Your task to perform on an android device: Turn off the flashlight Image 0: 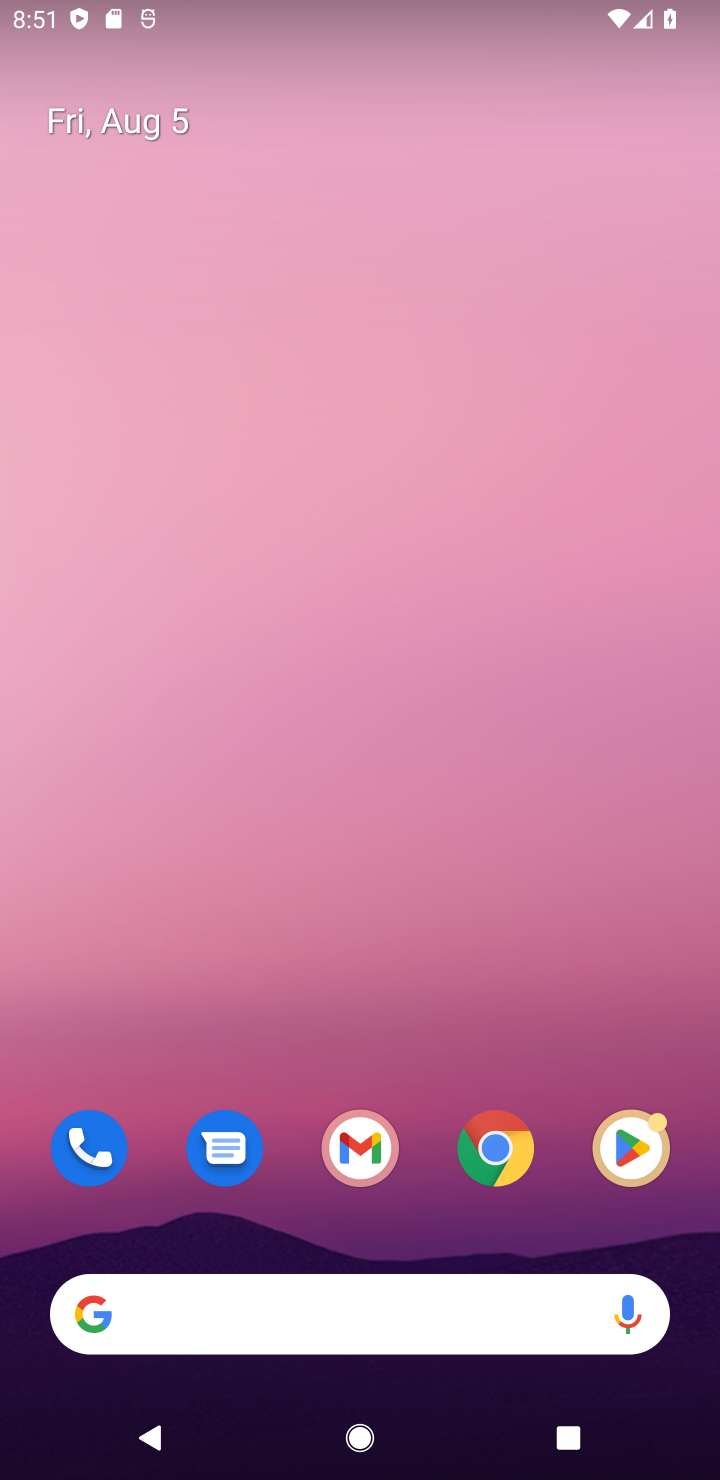
Step 0: drag from (421, 1246) to (446, 156)
Your task to perform on an android device: Turn off the flashlight Image 1: 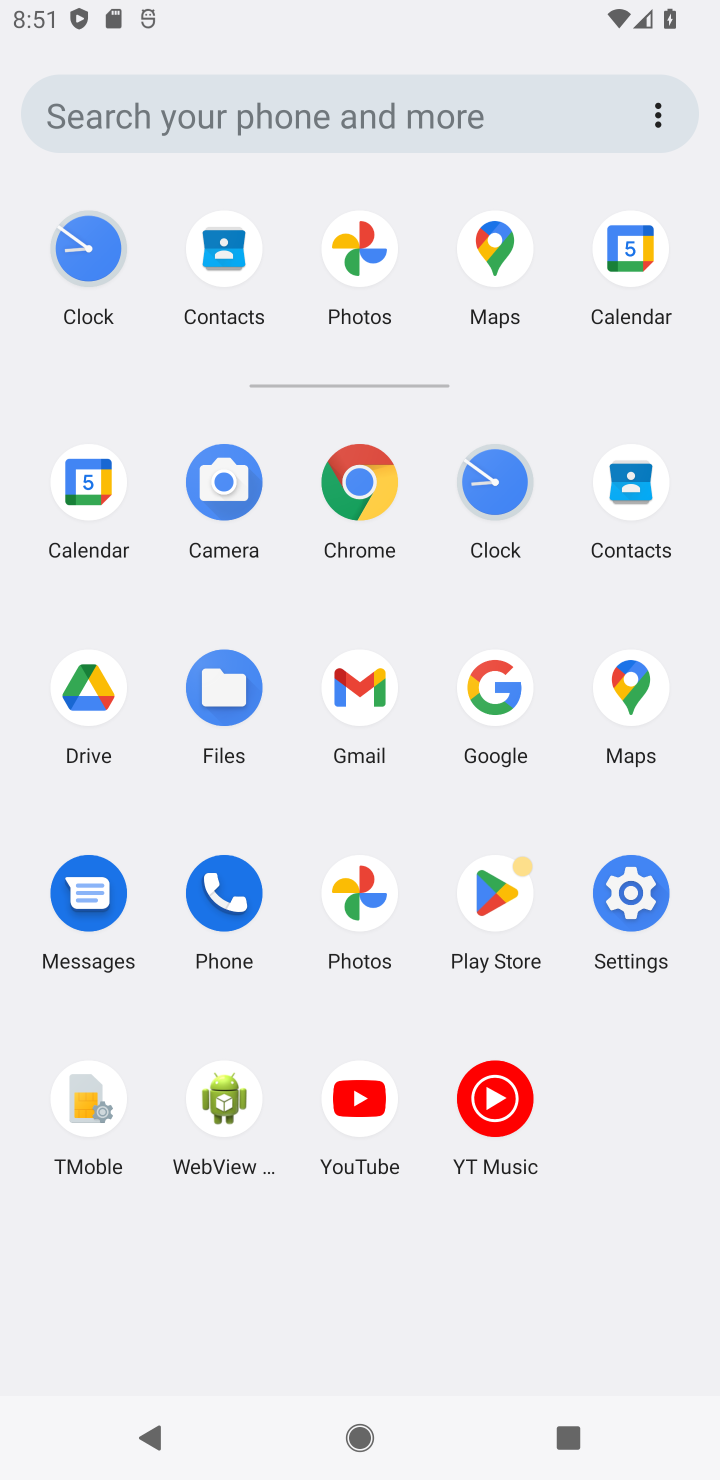
Step 1: click (638, 928)
Your task to perform on an android device: Turn off the flashlight Image 2: 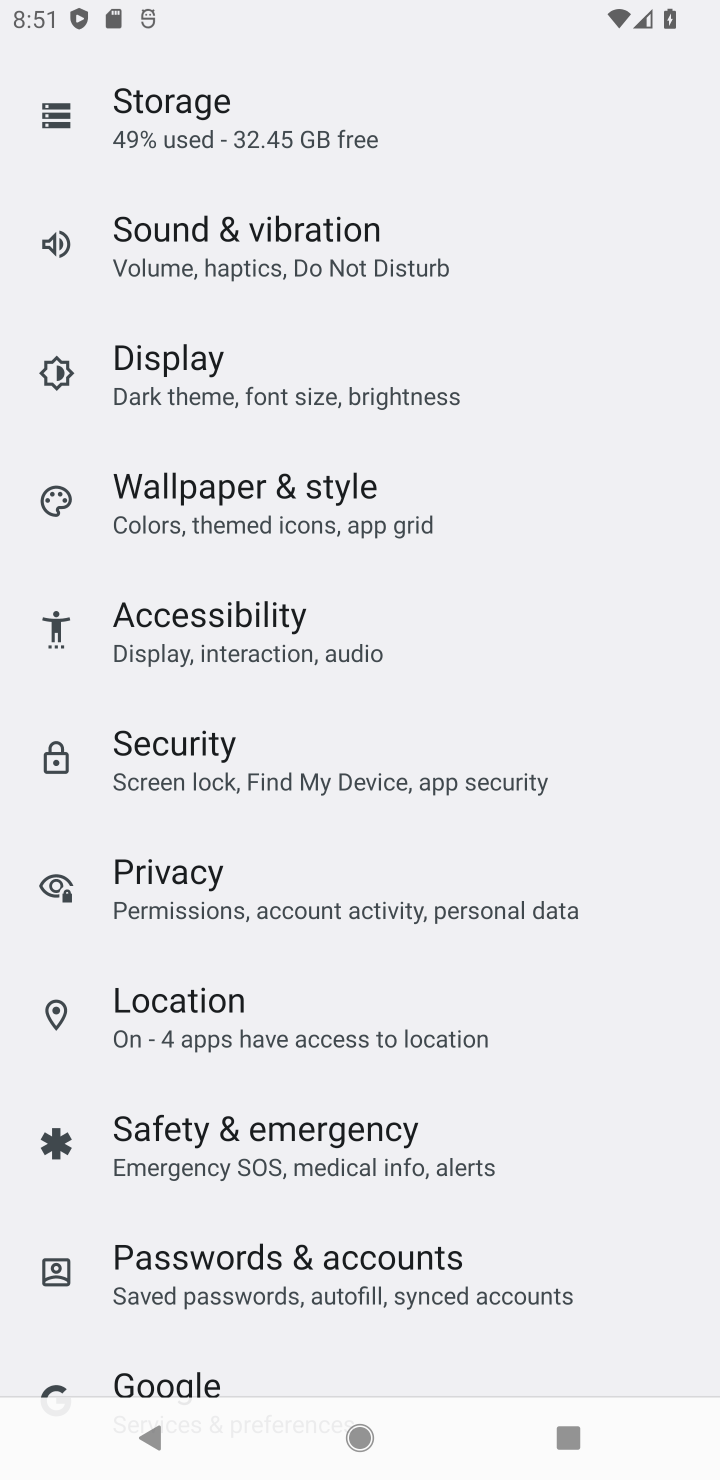
Step 2: task complete